Your task to perform on an android device: change your default location settings in chrome Image 0: 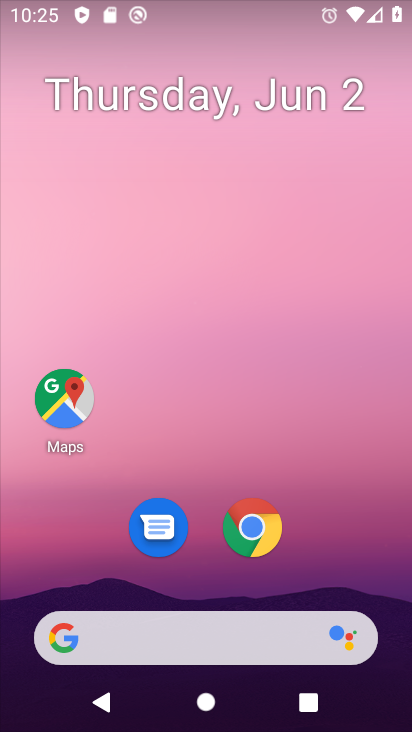
Step 0: click (242, 522)
Your task to perform on an android device: change your default location settings in chrome Image 1: 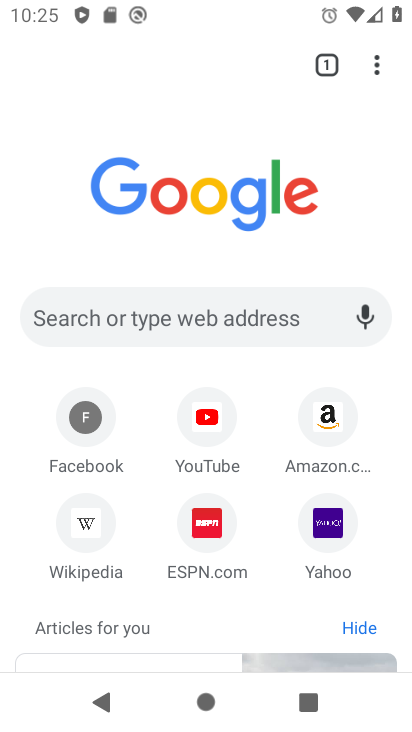
Step 1: drag from (378, 66) to (173, 548)
Your task to perform on an android device: change your default location settings in chrome Image 2: 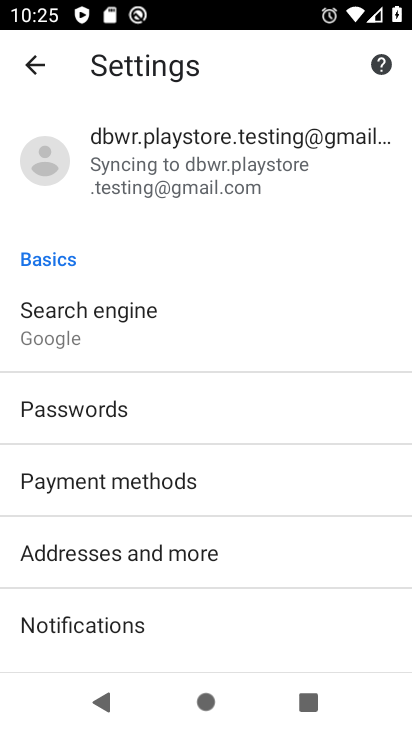
Step 2: drag from (155, 607) to (85, 90)
Your task to perform on an android device: change your default location settings in chrome Image 3: 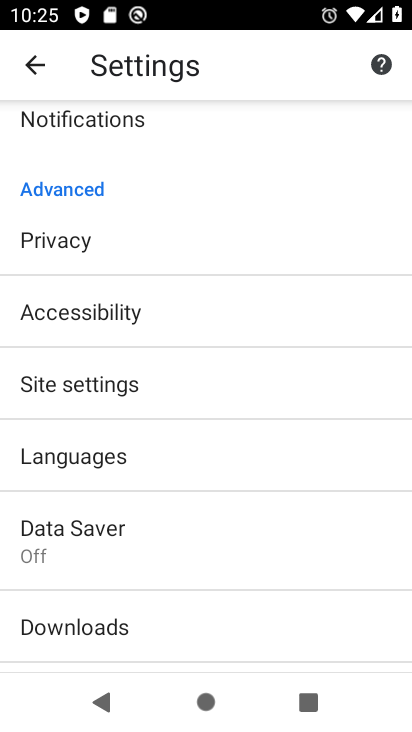
Step 3: click (90, 390)
Your task to perform on an android device: change your default location settings in chrome Image 4: 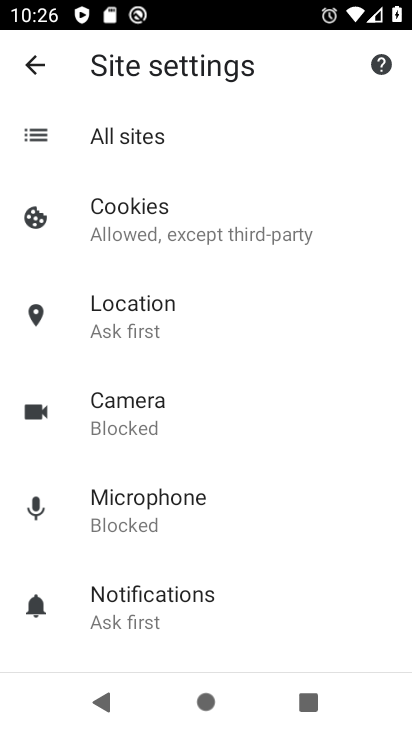
Step 4: click (111, 315)
Your task to perform on an android device: change your default location settings in chrome Image 5: 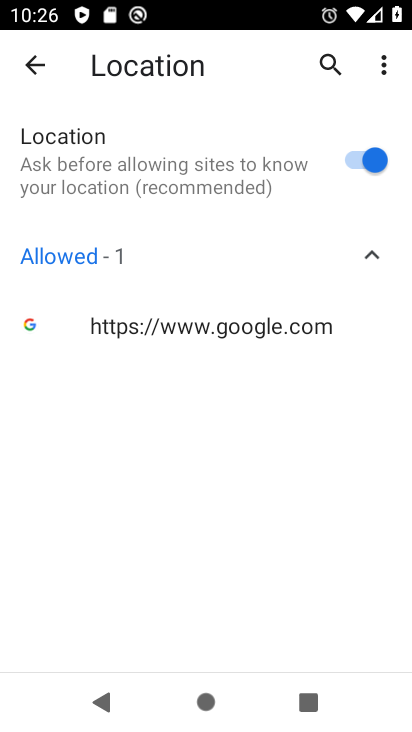
Step 5: click (357, 161)
Your task to perform on an android device: change your default location settings in chrome Image 6: 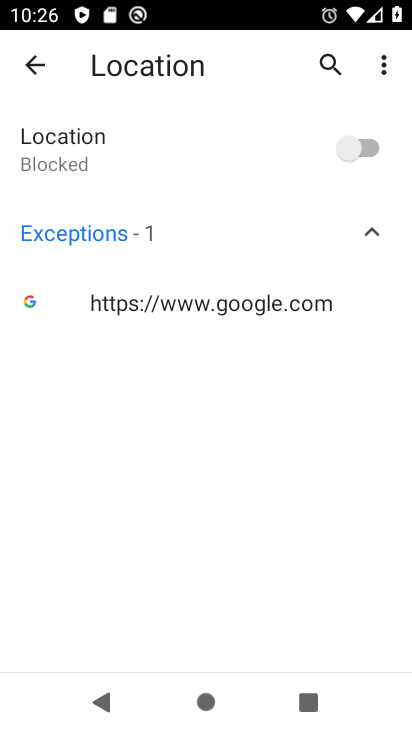
Step 6: task complete